Your task to perform on an android device: Open Google Maps and go to "Timeline" Image 0: 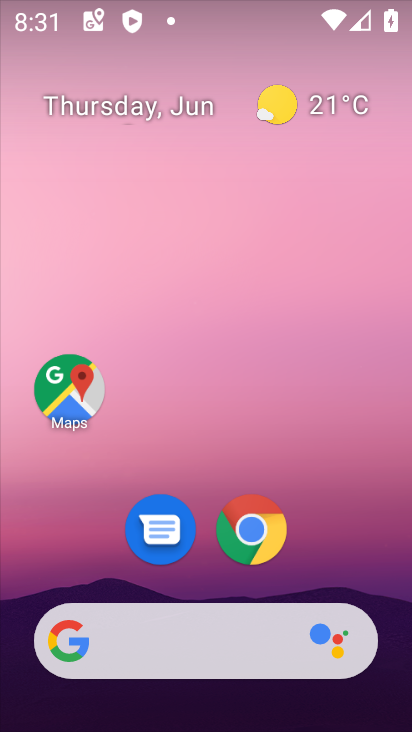
Step 0: click (71, 397)
Your task to perform on an android device: Open Google Maps and go to "Timeline" Image 1: 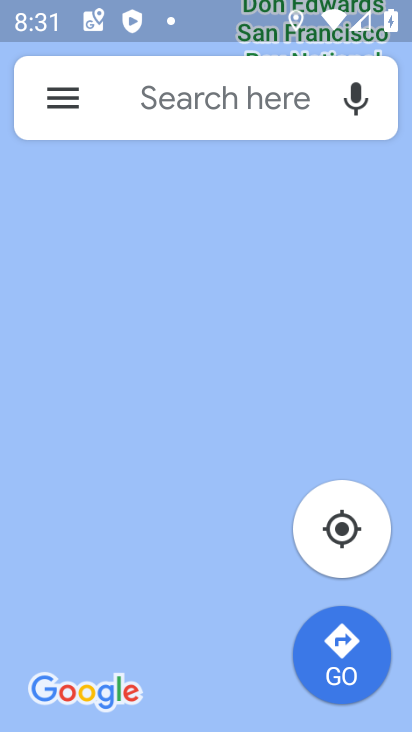
Step 1: click (54, 92)
Your task to perform on an android device: Open Google Maps and go to "Timeline" Image 2: 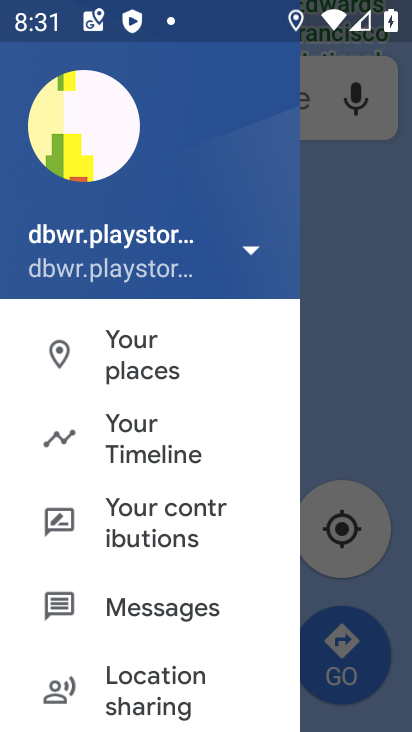
Step 2: click (131, 428)
Your task to perform on an android device: Open Google Maps and go to "Timeline" Image 3: 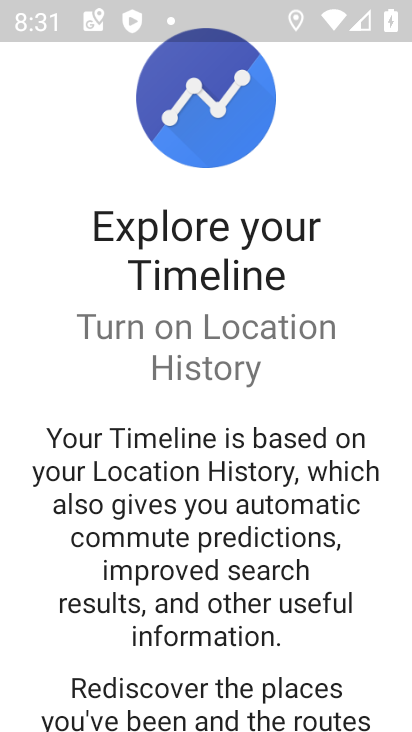
Step 3: drag from (238, 527) to (274, 206)
Your task to perform on an android device: Open Google Maps and go to "Timeline" Image 4: 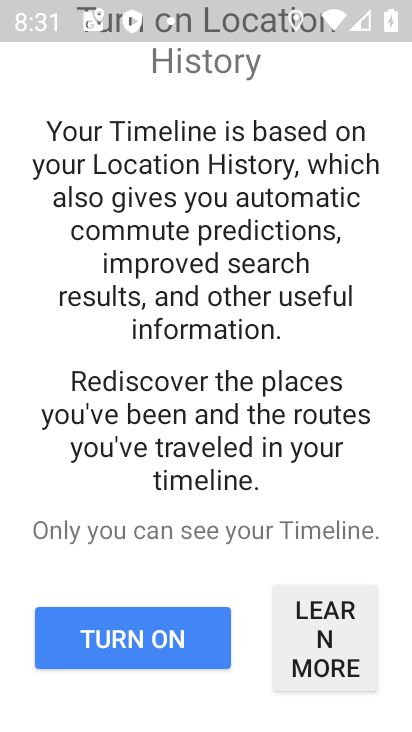
Step 4: click (175, 637)
Your task to perform on an android device: Open Google Maps and go to "Timeline" Image 5: 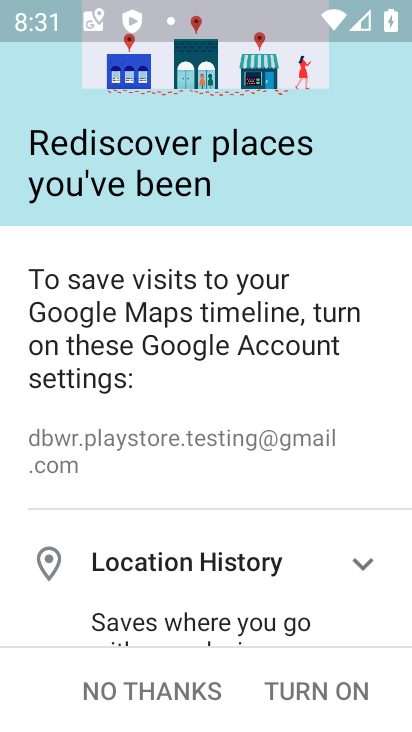
Step 5: task complete